Your task to perform on an android device: turn on data saver in the chrome app Image 0: 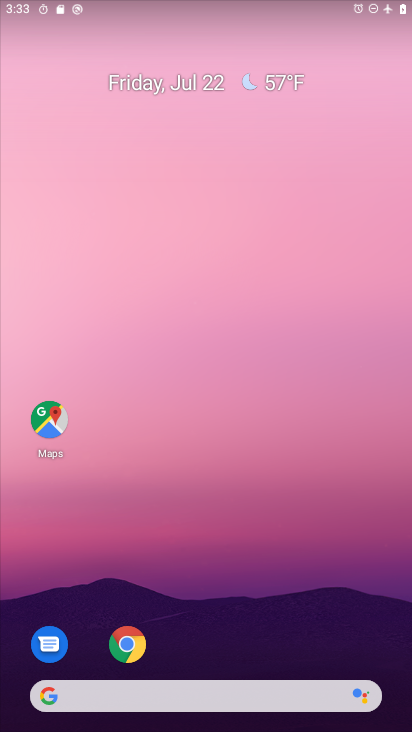
Step 0: click (144, 642)
Your task to perform on an android device: turn on data saver in the chrome app Image 1: 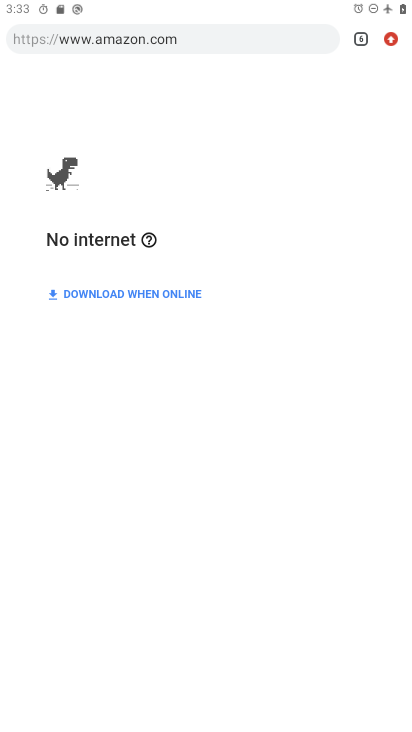
Step 1: click (382, 48)
Your task to perform on an android device: turn on data saver in the chrome app Image 2: 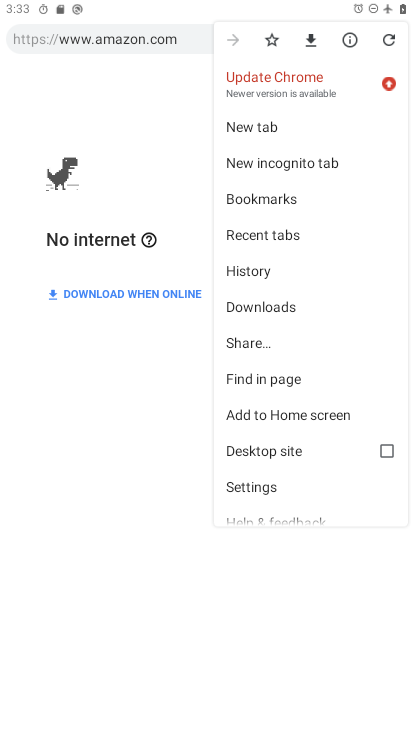
Step 2: click (261, 492)
Your task to perform on an android device: turn on data saver in the chrome app Image 3: 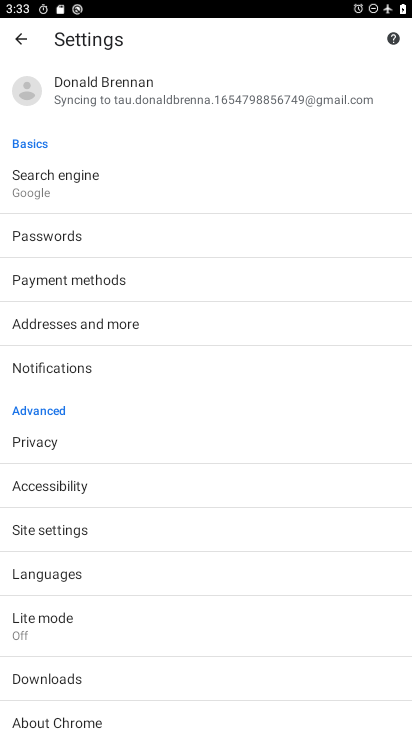
Step 3: click (110, 542)
Your task to perform on an android device: turn on data saver in the chrome app Image 4: 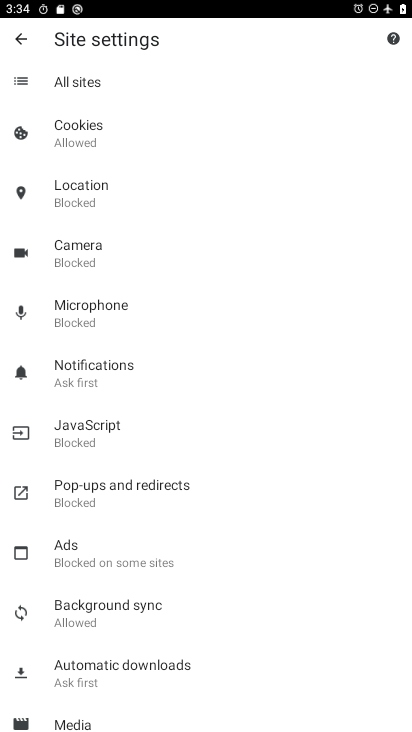
Step 4: click (14, 44)
Your task to perform on an android device: turn on data saver in the chrome app Image 5: 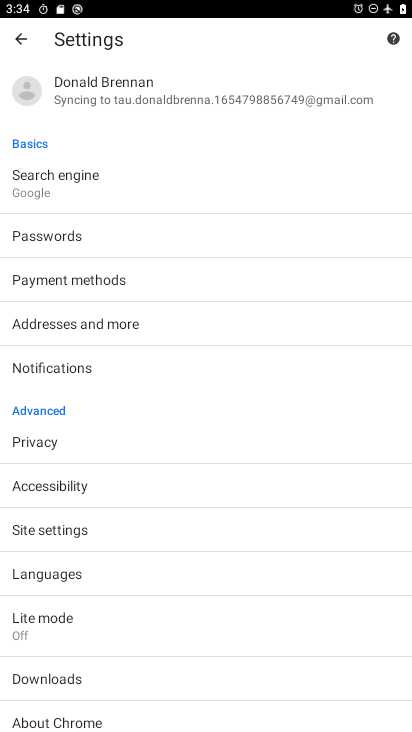
Step 5: click (89, 631)
Your task to perform on an android device: turn on data saver in the chrome app Image 6: 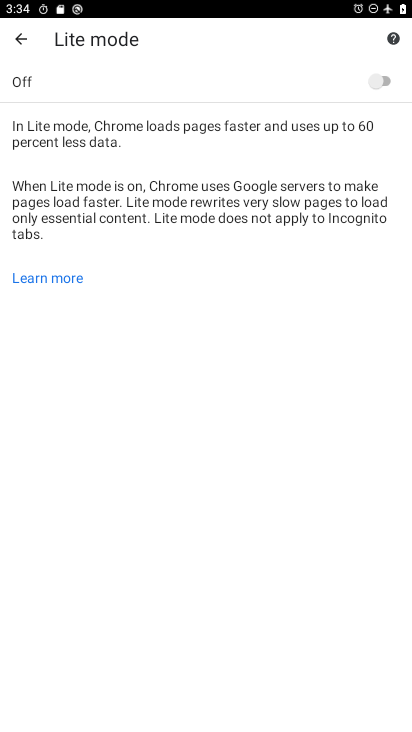
Step 6: click (384, 75)
Your task to perform on an android device: turn on data saver in the chrome app Image 7: 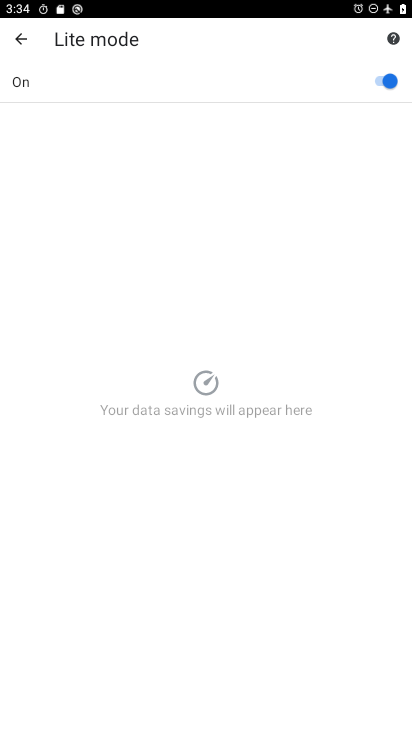
Step 7: task complete